Your task to perform on an android device: turn off smart reply in the gmail app Image 0: 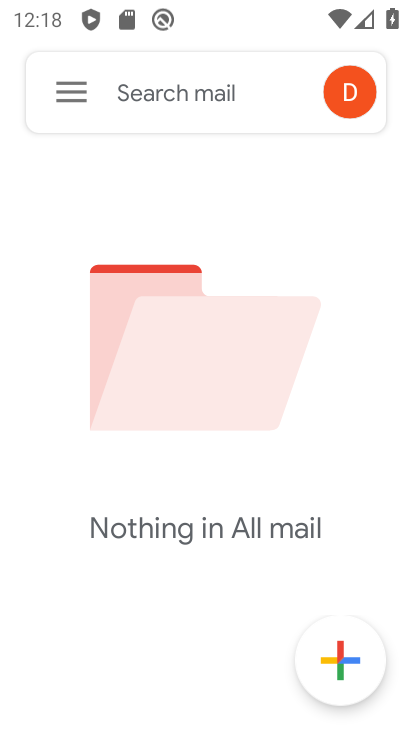
Step 0: click (54, 96)
Your task to perform on an android device: turn off smart reply in the gmail app Image 1: 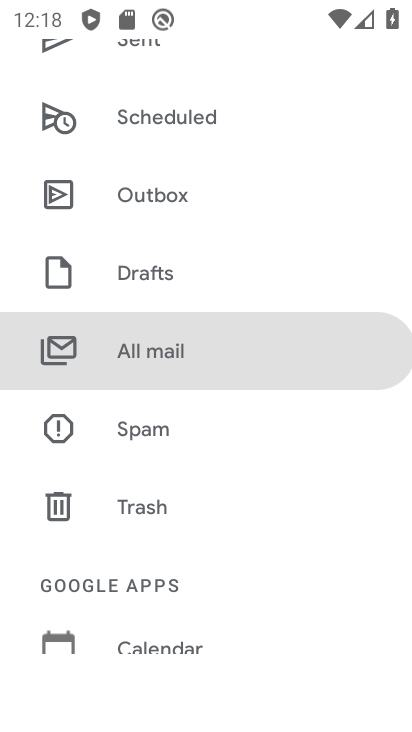
Step 1: drag from (137, 560) to (139, 68)
Your task to perform on an android device: turn off smart reply in the gmail app Image 2: 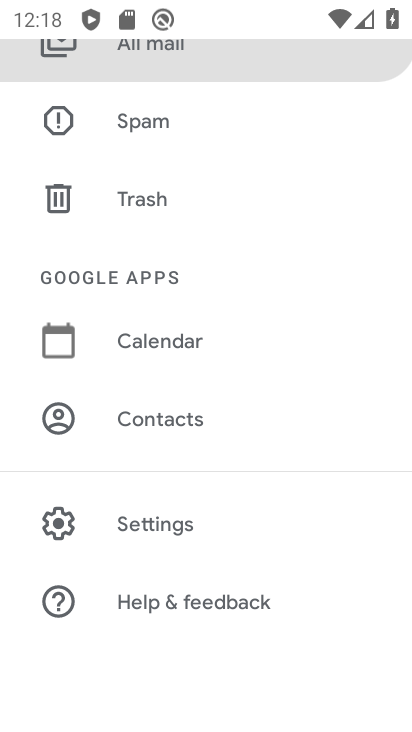
Step 2: click (153, 529)
Your task to perform on an android device: turn off smart reply in the gmail app Image 3: 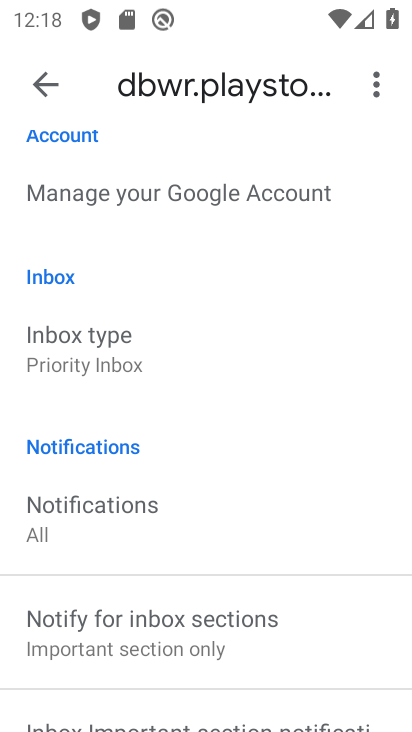
Step 3: drag from (192, 599) to (193, 206)
Your task to perform on an android device: turn off smart reply in the gmail app Image 4: 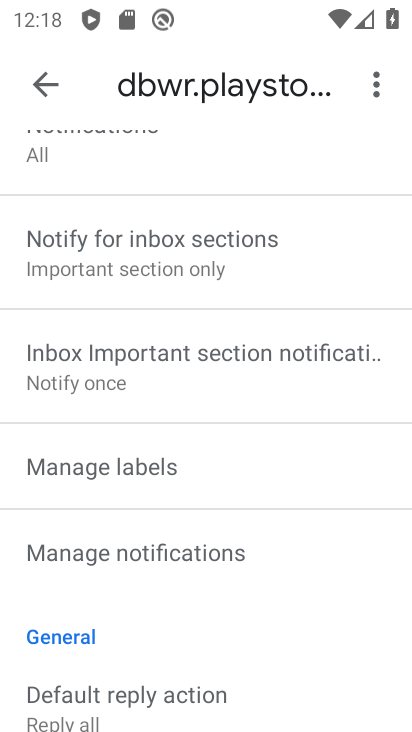
Step 4: drag from (204, 487) to (241, 136)
Your task to perform on an android device: turn off smart reply in the gmail app Image 5: 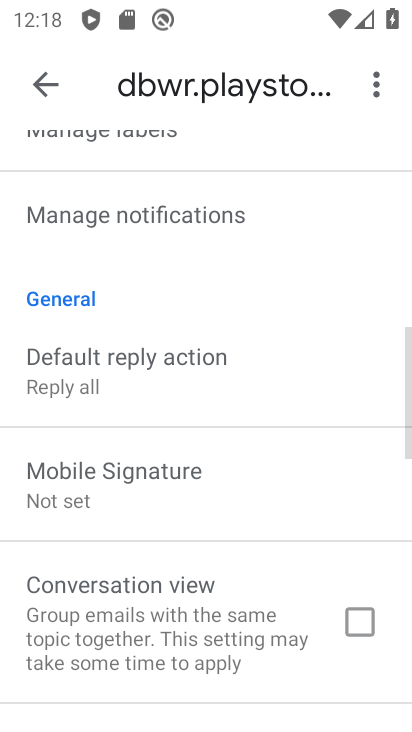
Step 5: drag from (230, 166) to (284, 70)
Your task to perform on an android device: turn off smart reply in the gmail app Image 6: 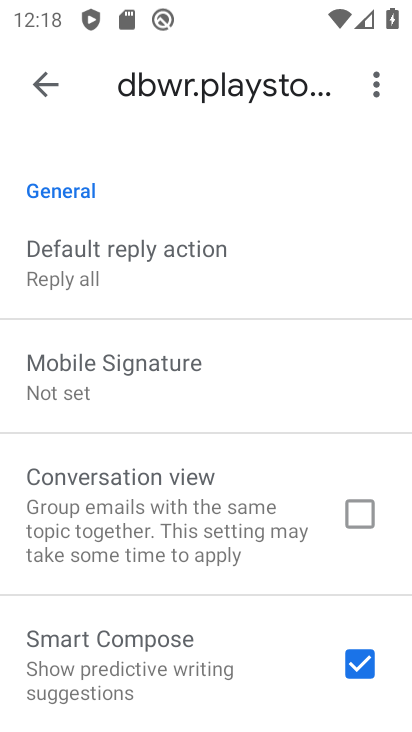
Step 6: drag from (196, 401) to (243, 105)
Your task to perform on an android device: turn off smart reply in the gmail app Image 7: 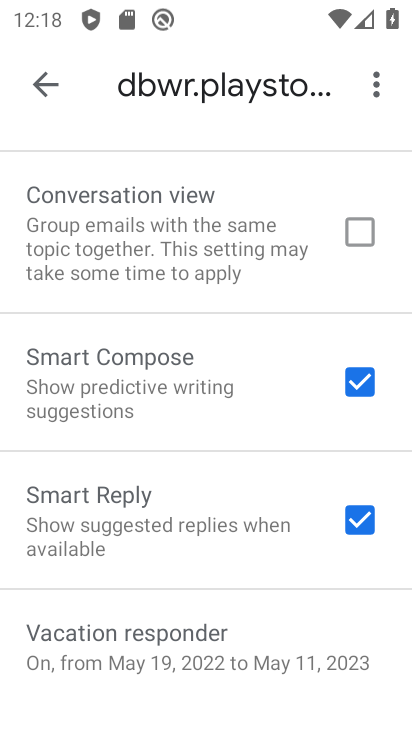
Step 7: click (358, 533)
Your task to perform on an android device: turn off smart reply in the gmail app Image 8: 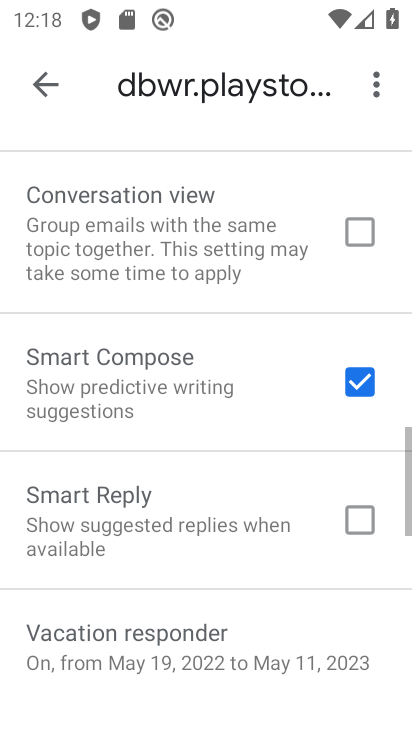
Step 8: task complete